Your task to perform on an android device: What's the weather going to be tomorrow? Image 0: 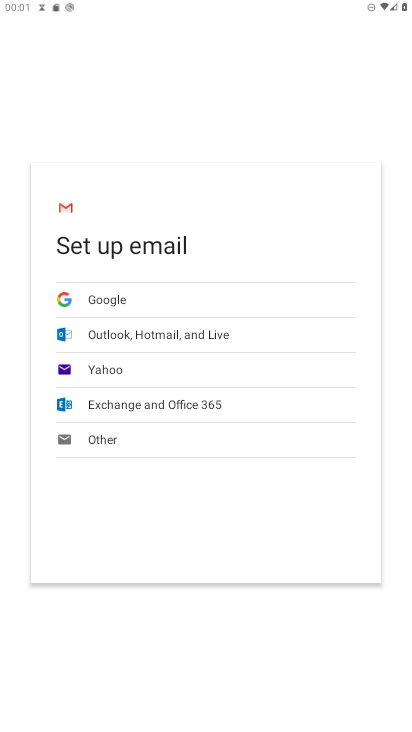
Step 0: press home button
Your task to perform on an android device: What's the weather going to be tomorrow? Image 1: 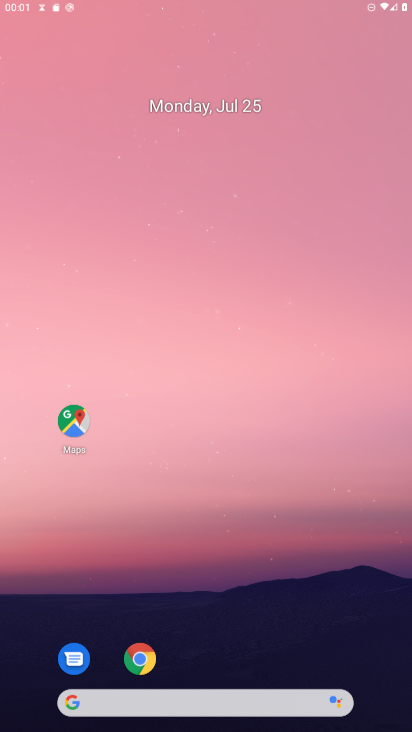
Step 1: drag from (234, 639) to (225, 221)
Your task to perform on an android device: What's the weather going to be tomorrow? Image 2: 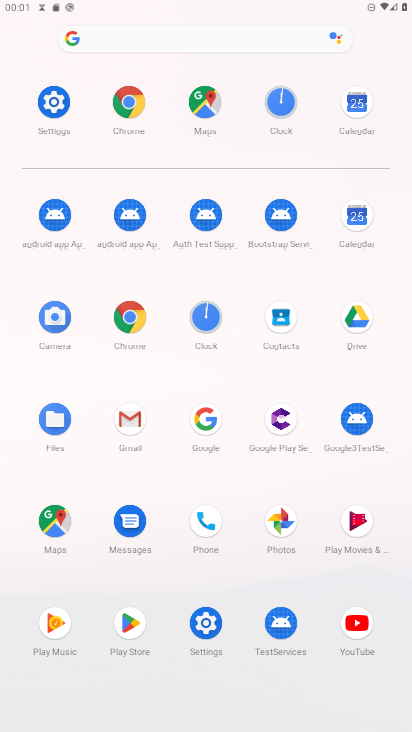
Step 2: click (121, 111)
Your task to perform on an android device: What's the weather going to be tomorrow? Image 3: 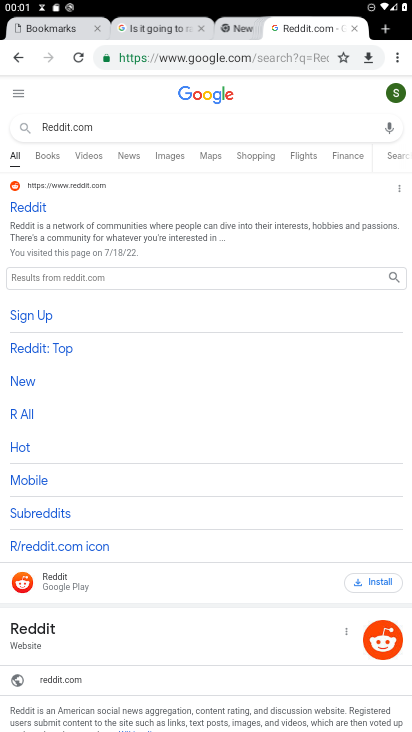
Step 3: click (387, 35)
Your task to perform on an android device: What's the weather going to be tomorrow? Image 4: 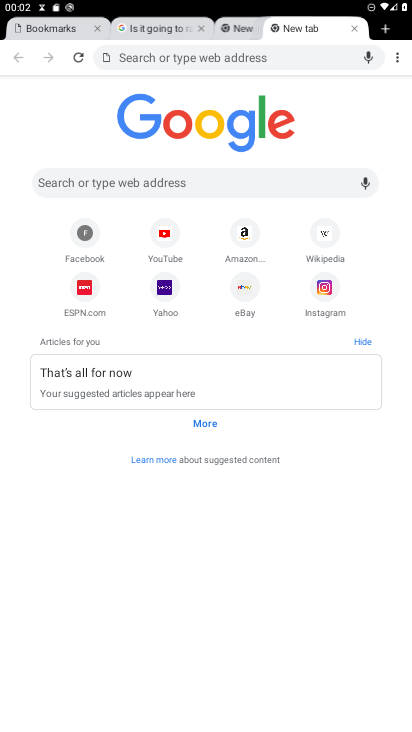
Step 4: click (263, 170)
Your task to perform on an android device: What's the weather going to be tomorrow? Image 5: 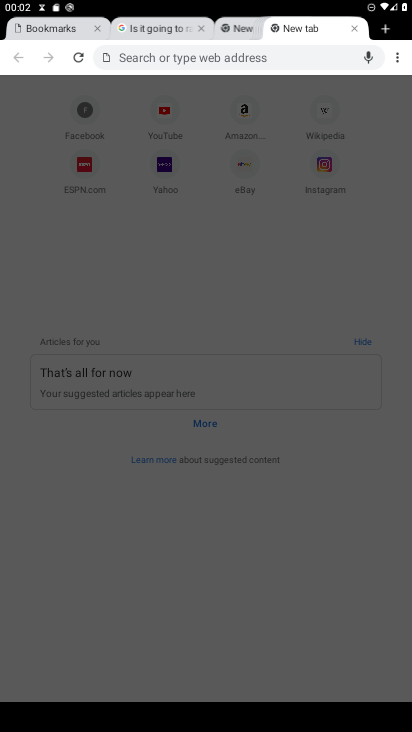
Step 5: type "What's the weather going to be tomorrow?"
Your task to perform on an android device: What's the weather going to be tomorrow? Image 6: 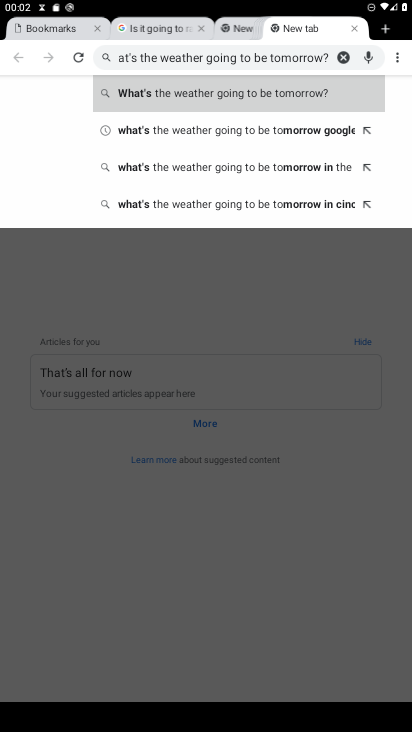
Step 6: click (199, 93)
Your task to perform on an android device: What's the weather going to be tomorrow? Image 7: 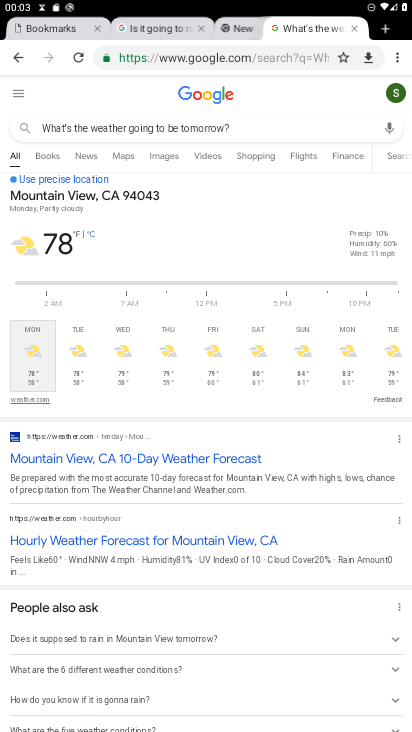
Step 7: task complete